Your task to perform on an android device: change notification settings in the gmail app Image 0: 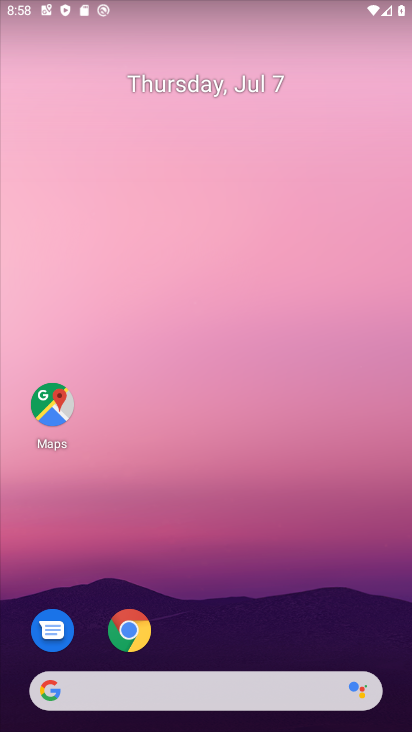
Step 0: drag from (358, 380) to (361, 52)
Your task to perform on an android device: change notification settings in the gmail app Image 1: 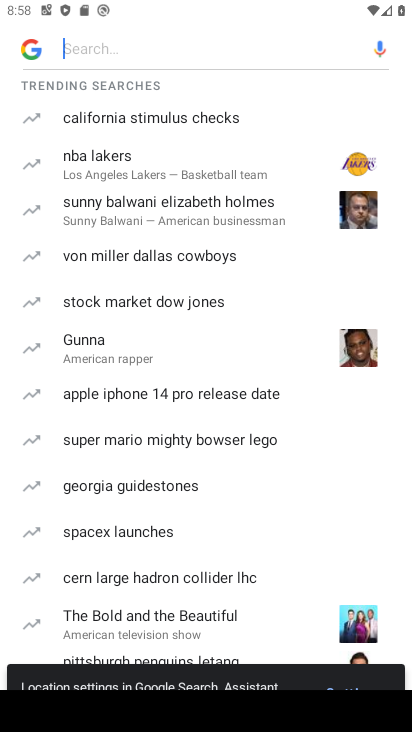
Step 1: press home button
Your task to perform on an android device: change notification settings in the gmail app Image 2: 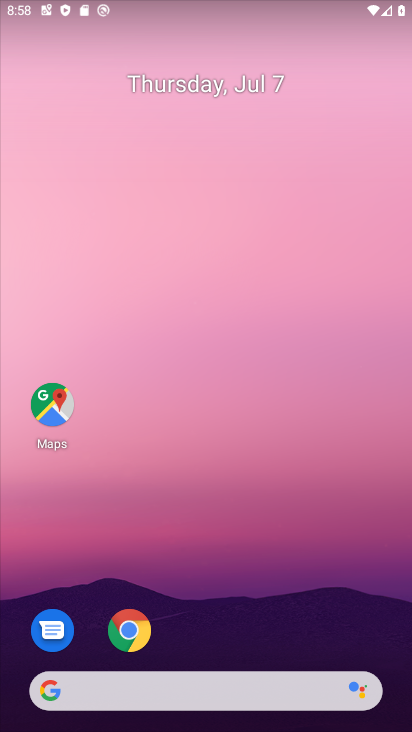
Step 2: drag from (306, 516) to (292, 34)
Your task to perform on an android device: change notification settings in the gmail app Image 3: 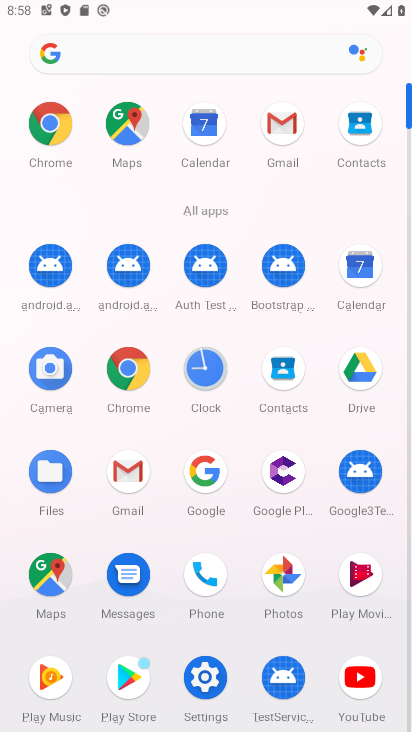
Step 3: click (286, 126)
Your task to perform on an android device: change notification settings in the gmail app Image 4: 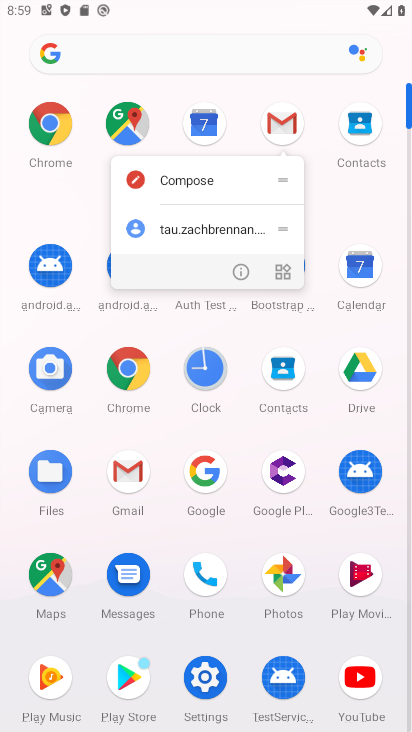
Step 4: click (240, 267)
Your task to perform on an android device: change notification settings in the gmail app Image 5: 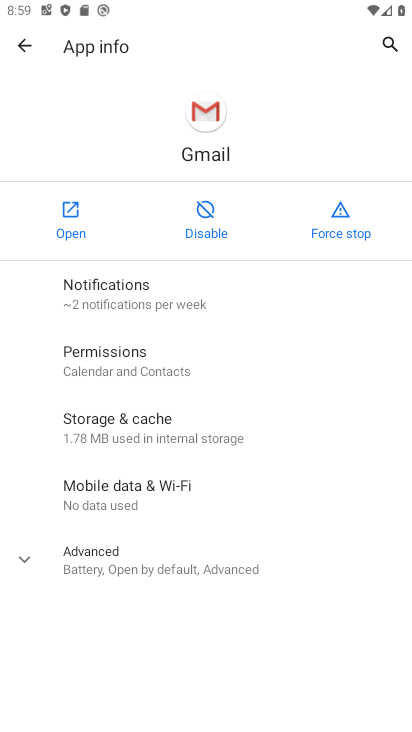
Step 5: click (102, 299)
Your task to perform on an android device: change notification settings in the gmail app Image 6: 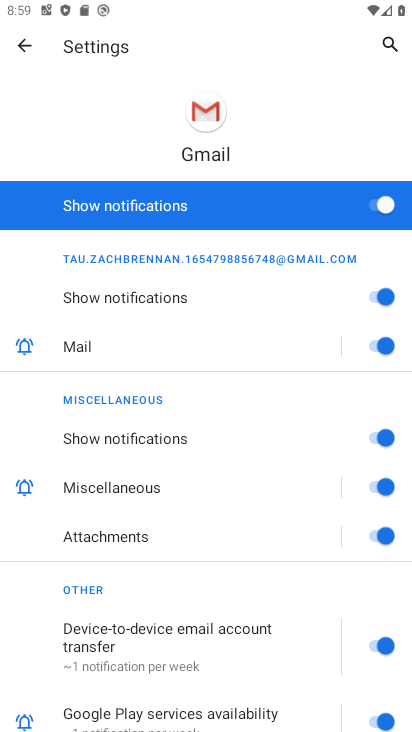
Step 6: click (384, 288)
Your task to perform on an android device: change notification settings in the gmail app Image 7: 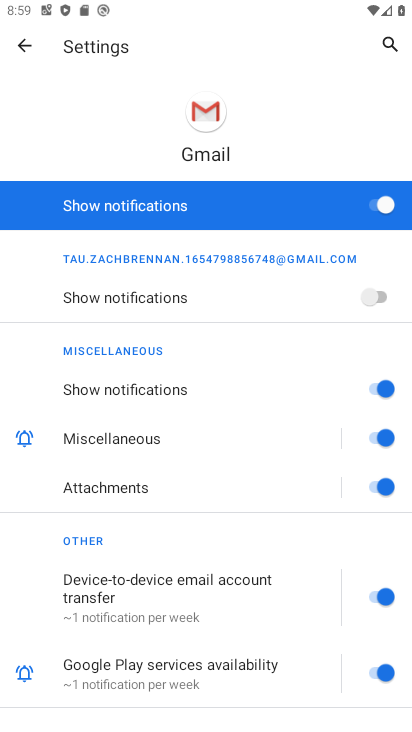
Step 7: task complete